Your task to perform on an android device: Open CNN.com Image 0: 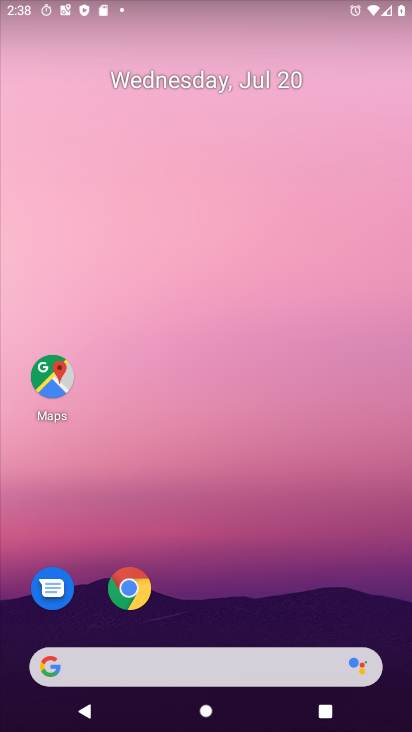
Step 0: drag from (165, 490) to (213, 74)
Your task to perform on an android device: Open CNN.com Image 1: 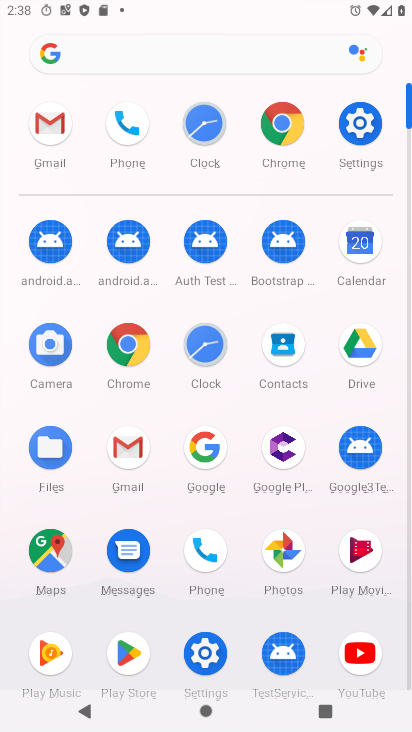
Step 1: click (136, 345)
Your task to perform on an android device: Open CNN.com Image 2: 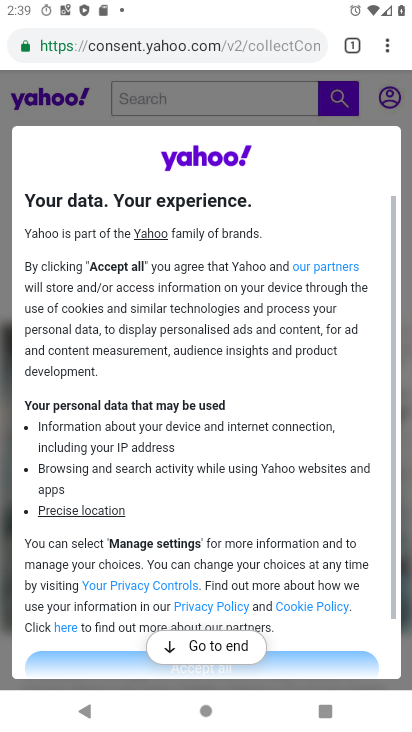
Step 2: click (132, 44)
Your task to perform on an android device: Open CNN.com Image 3: 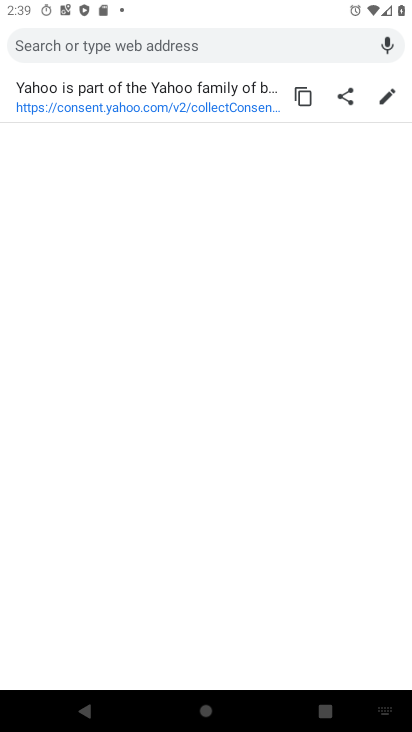
Step 3: type "CNN.com"
Your task to perform on an android device: Open CNN.com Image 4: 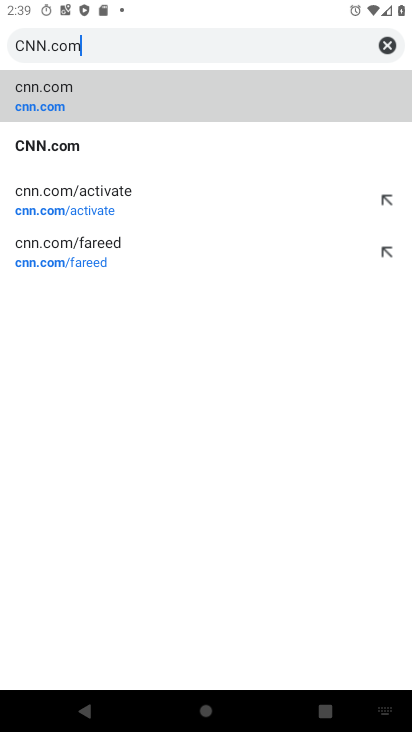
Step 4: press enter
Your task to perform on an android device: Open CNN.com Image 5: 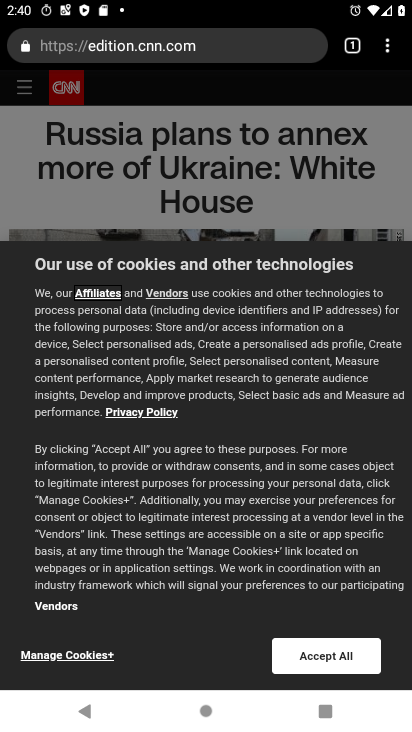
Step 5: task complete